Your task to perform on an android device: empty trash in google photos Image 0: 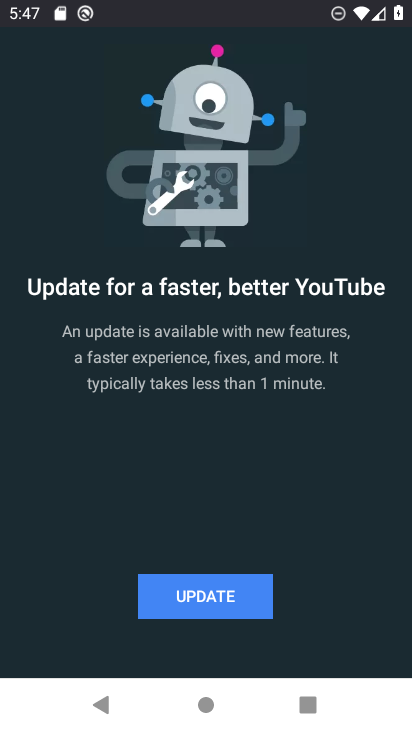
Step 0: press home button
Your task to perform on an android device: empty trash in google photos Image 1: 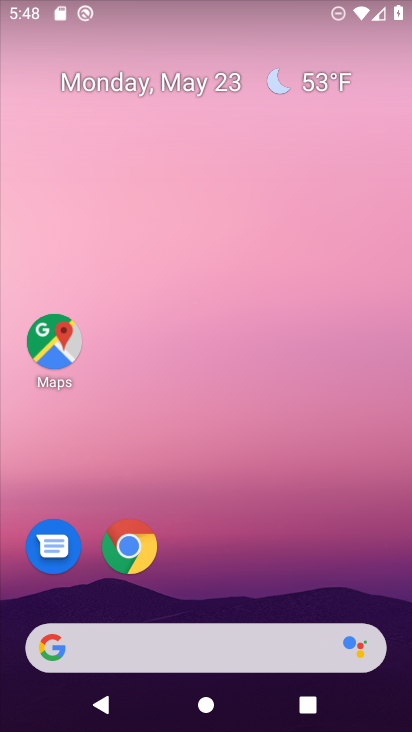
Step 1: drag from (264, 578) to (274, 181)
Your task to perform on an android device: empty trash in google photos Image 2: 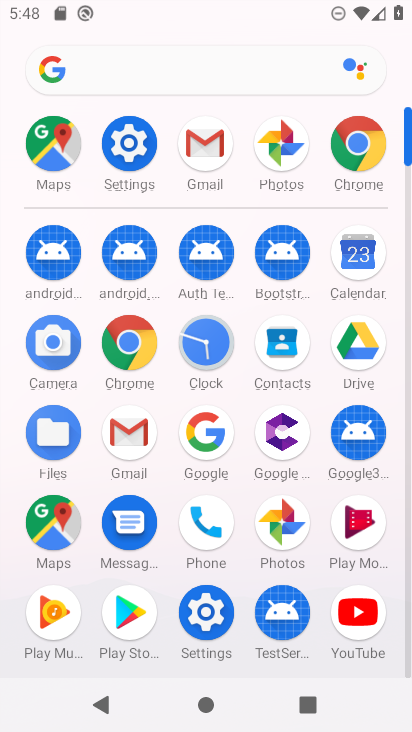
Step 2: click (283, 516)
Your task to perform on an android device: empty trash in google photos Image 3: 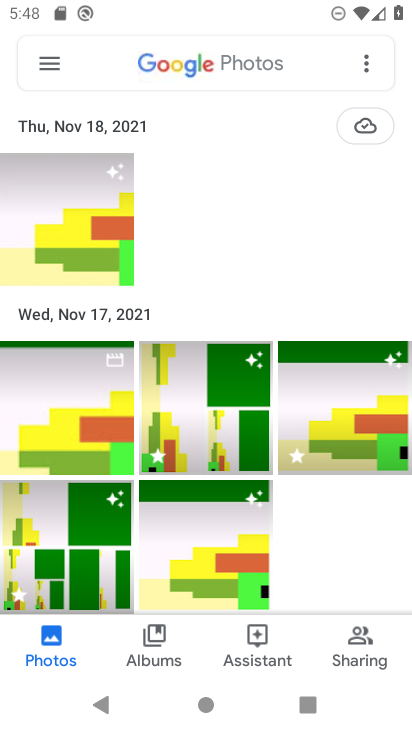
Step 3: click (53, 59)
Your task to perform on an android device: empty trash in google photos Image 4: 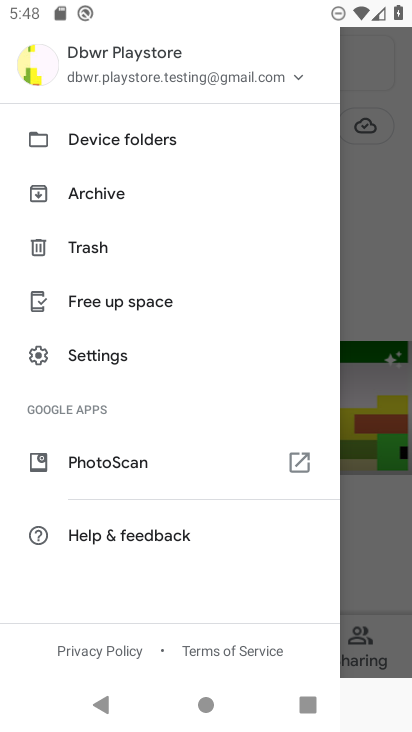
Step 4: click (174, 388)
Your task to perform on an android device: empty trash in google photos Image 5: 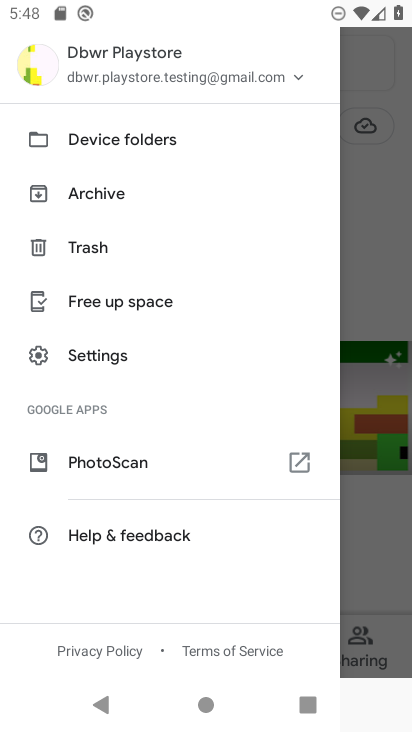
Step 5: click (90, 251)
Your task to perform on an android device: empty trash in google photos Image 6: 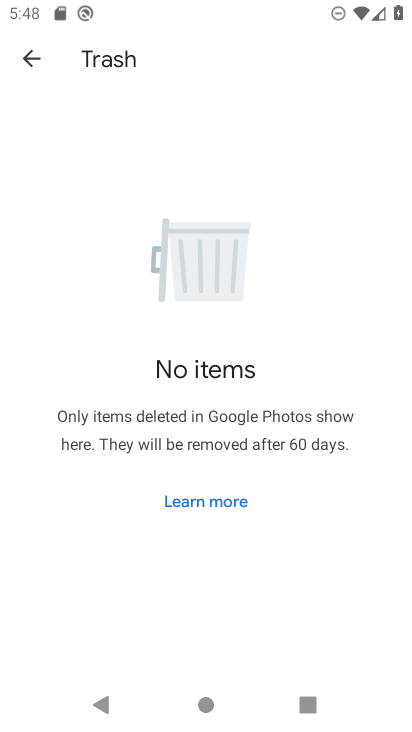
Step 6: task complete